Your task to perform on an android device: turn on wifi Image 0: 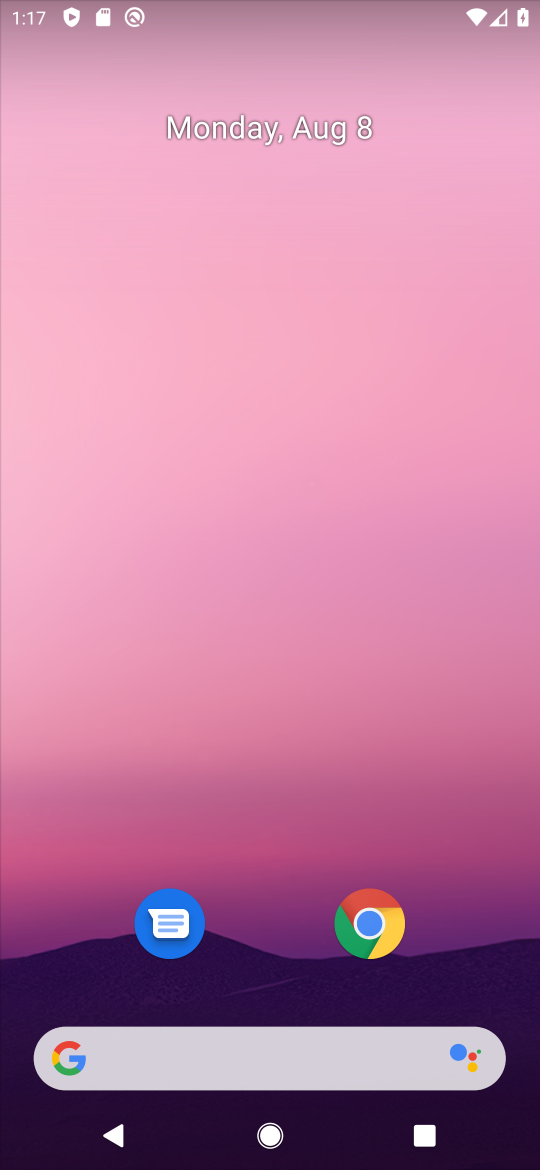
Step 0: drag from (265, 740) to (250, 143)
Your task to perform on an android device: turn on wifi Image 1: 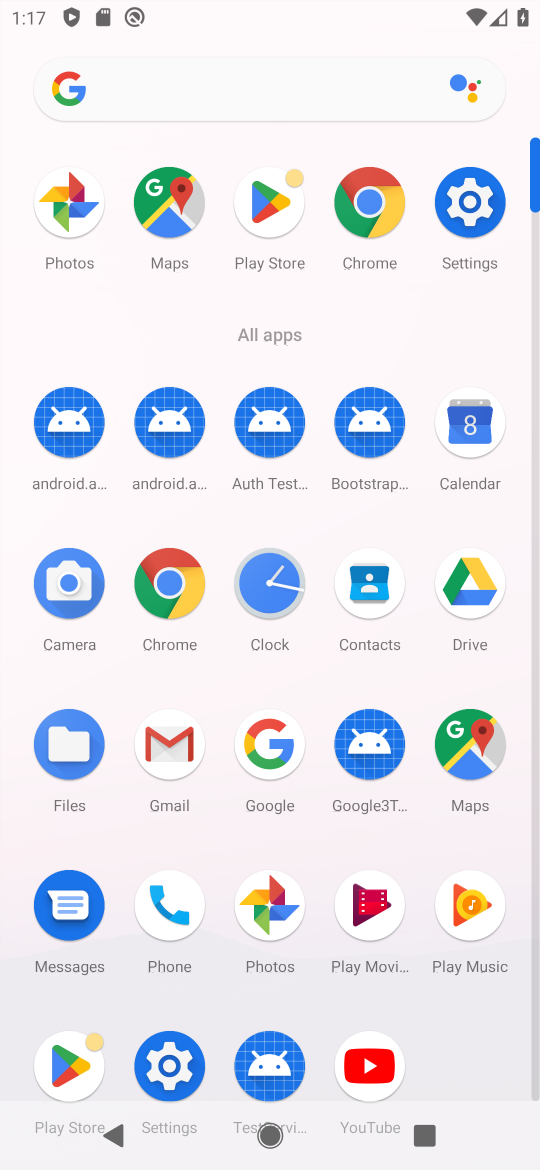
Step 1: click (468, 187)
Your task to perform on an android device: turn on wifi Image 2: 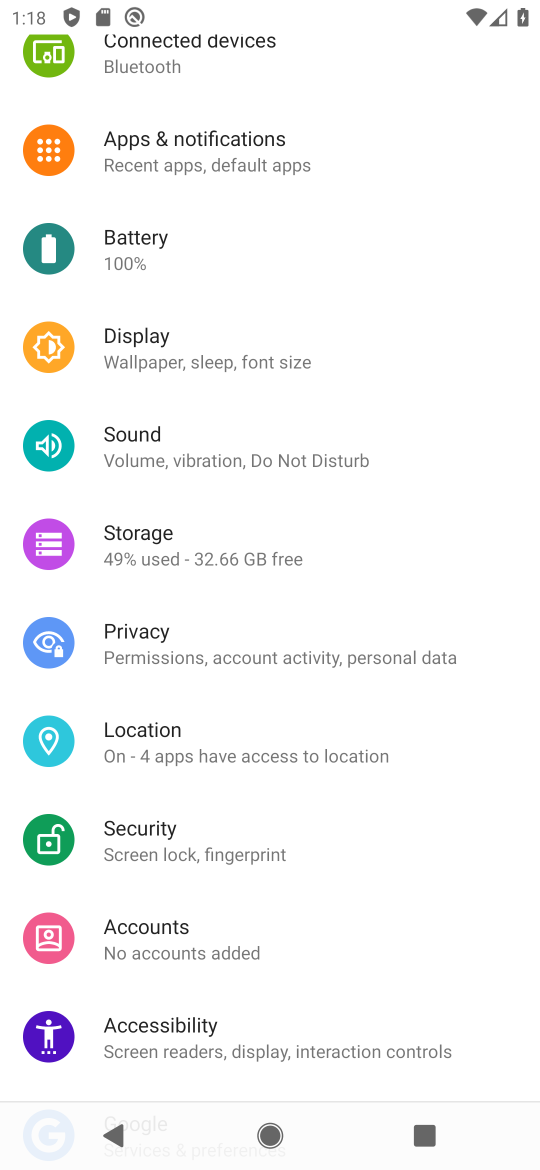
Step 2: task complete